Your task to perform on an android device: Go to calendar. Show me events next week Image 0: 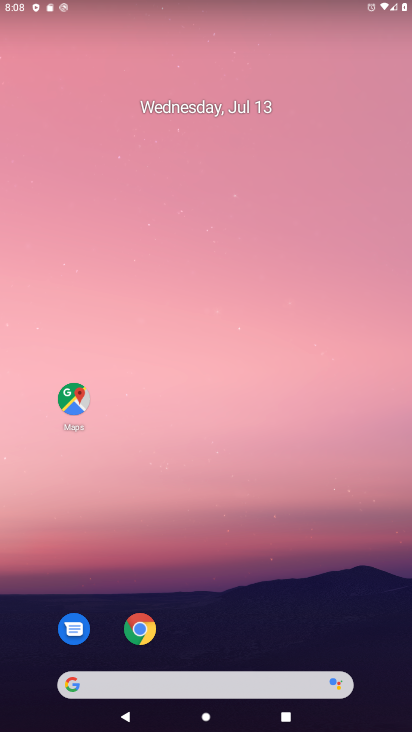
Step 0: drag from (231, 582) to (294, 63)
Your task to perform on an android device: Go to calendar. Show me events next week Image 1: 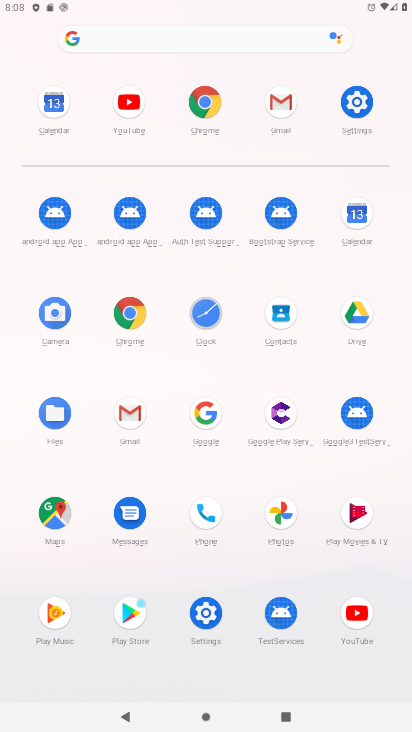
Step 1: click (366, 235)
Your task to perform on an android device: Go to calendar. Show me events next week Image 2: 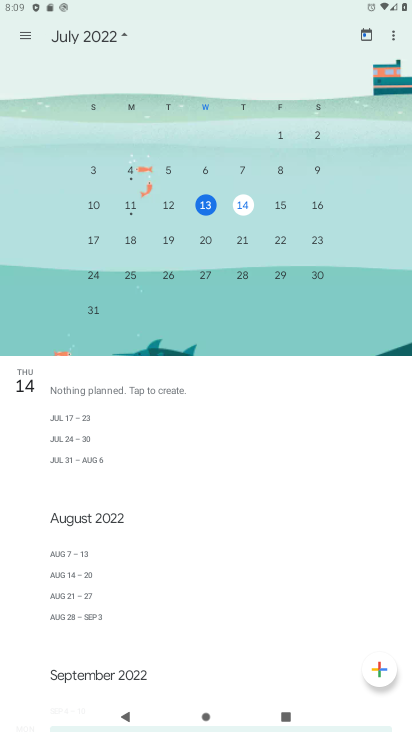
Step 2: click (239, 239)
Your task to perform on an android device: Go to calendar. Show me events next week Image 3: 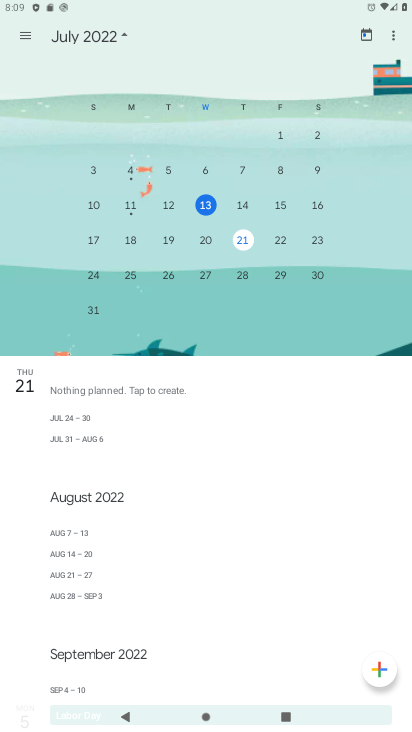
Step 3: task complete